Your task to perform on an android device: When is my next meeting? Image 0: 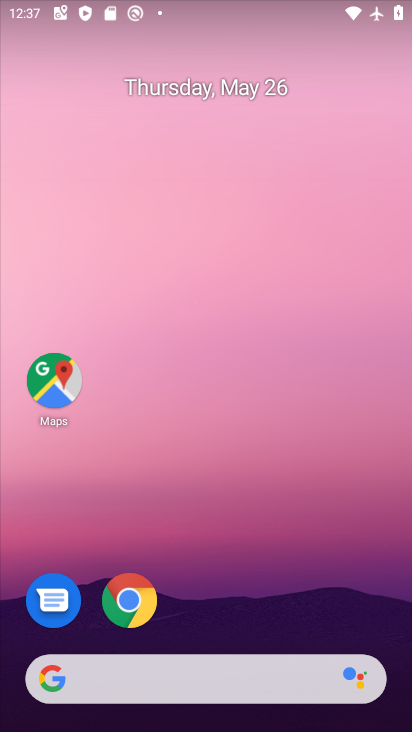
Step 0: drag from (245, 613) to (228, 113)
Your task to perform on an android device: When is my next meeting? Image 1: 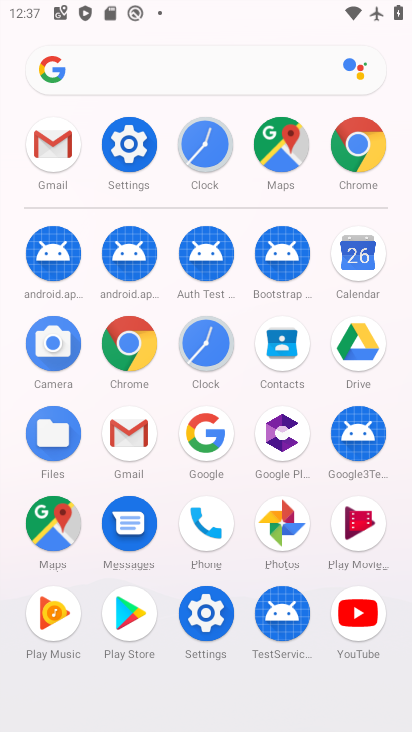
Step 1: click (358, 259)
Your task to perform on an android device: When is my next meeting? Image 2: 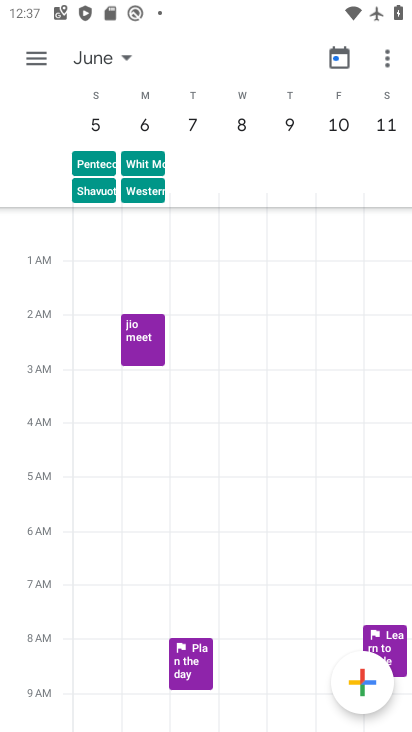
Step 2: click (89, 59)
Your task to perform on an android device: When is my next meeting? Image 3: 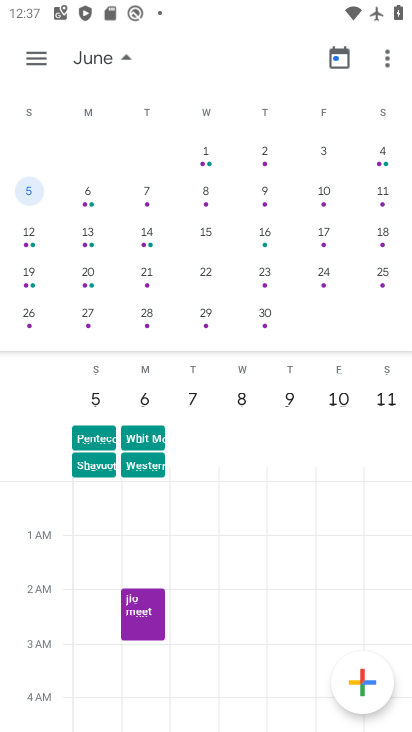
Step 3: drag from (53, 237) to (321, 241)
Your task to perform on an android device: When is my next meeting? Image 4: 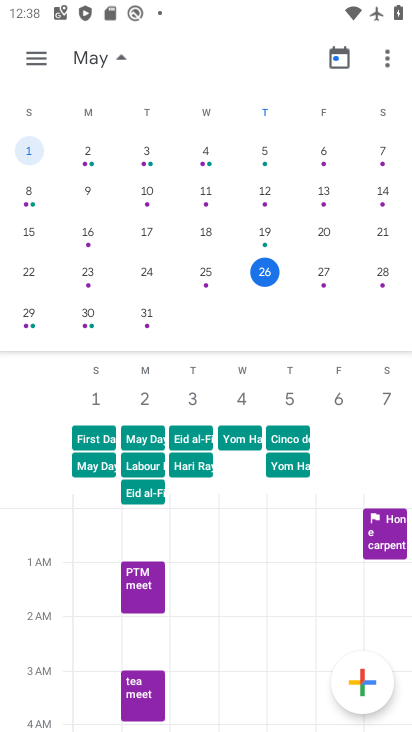
Step 4: click (264, 263)
Your task to perform on an android device: When is my next meeting? Image 5: 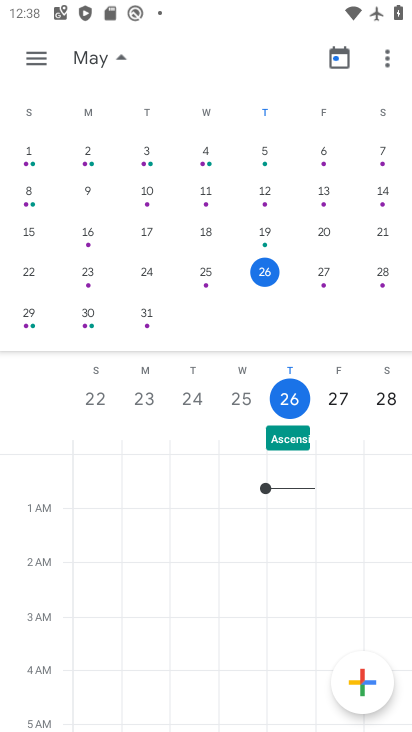
Step 5: task complete